Your task to perform on an android device: change your default location settings in chrome Image 0: 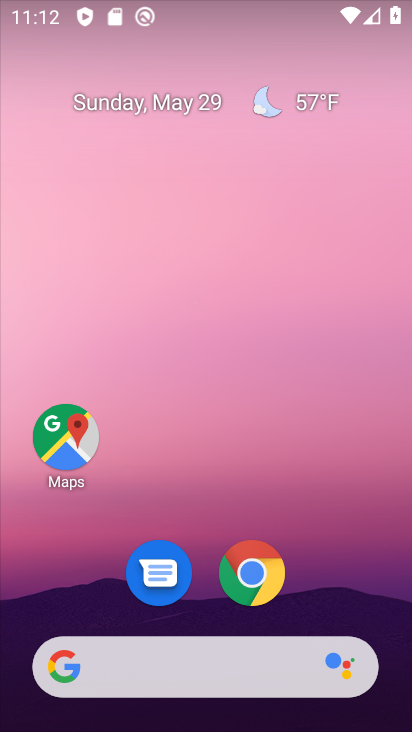
Step 0: drag from (319, 686) to (268, 1)
Your task to perform on an android device: change your default location settings in chrome Image 1: 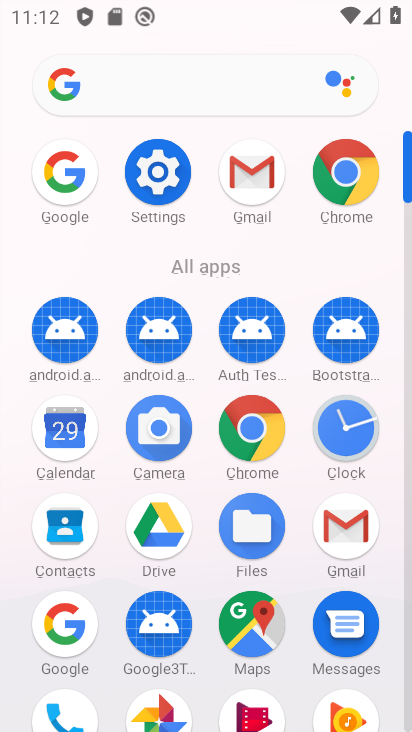
Step 1: click (261, 435)
Your task to perform on an android device: change your default location settings in chrome Image 2: 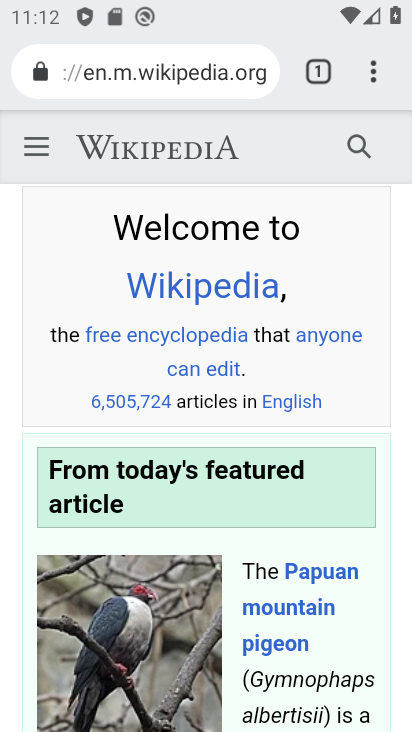
Step 2: drag from (371, 72) to (169, 576)
Your task to perform on an android device: change your default location settings in chrome Image 3: 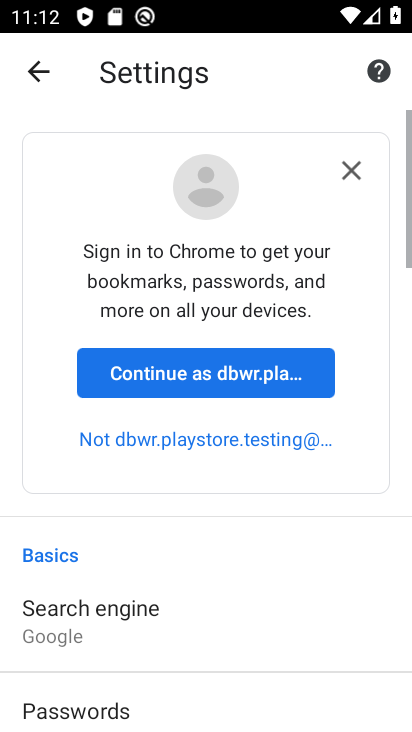
Step 3: drag from (275, 641) to (356, 35)
Your task to perform on an android device: change your default location settings in chrome Image 4: 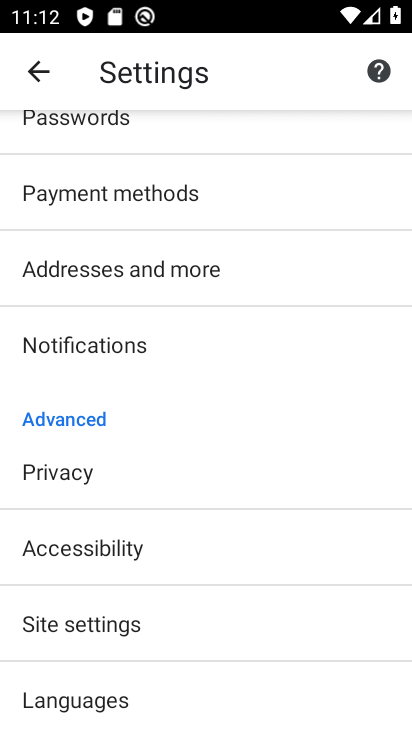
Step 4: click (112, 623)
Your task to perform on an android device: change your default location settings in chrome Image 5: 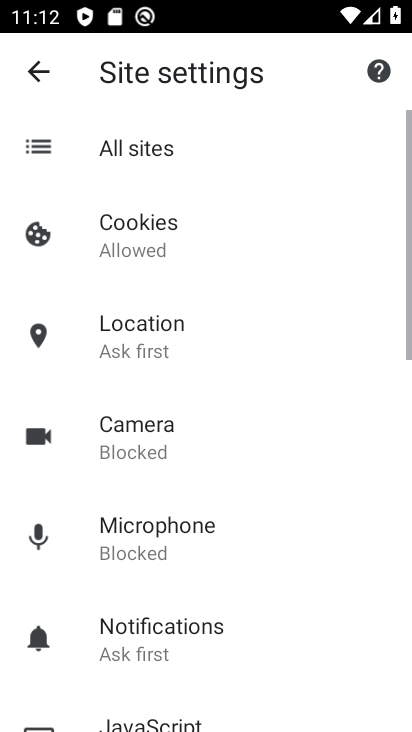
Step 5: drag from (260, 697) to (222, 358)
Your task to perform on an android device: change your default location settings in chrome Image 6: 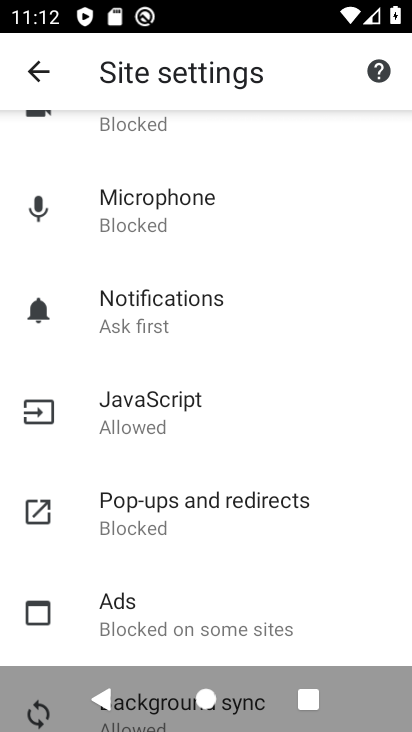
Step 6: drag from (213, 229) to (219, 500)
Your task to perform on an android device: change your default location settings in chrome Image 7: 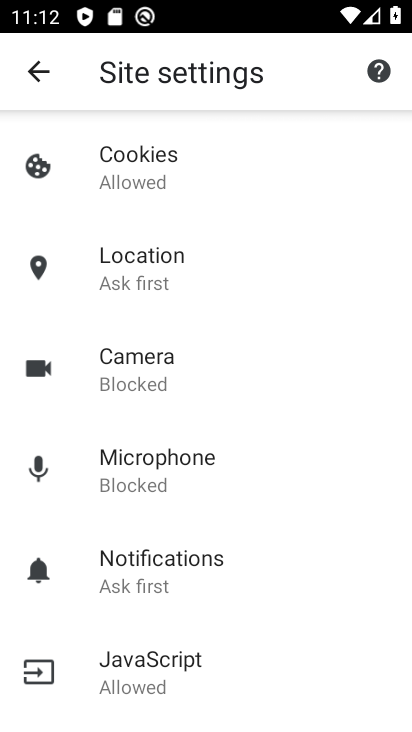
Step 7: click (185, 293)
Your task to perform on an android device: change your default location settings in chrome Image 8: 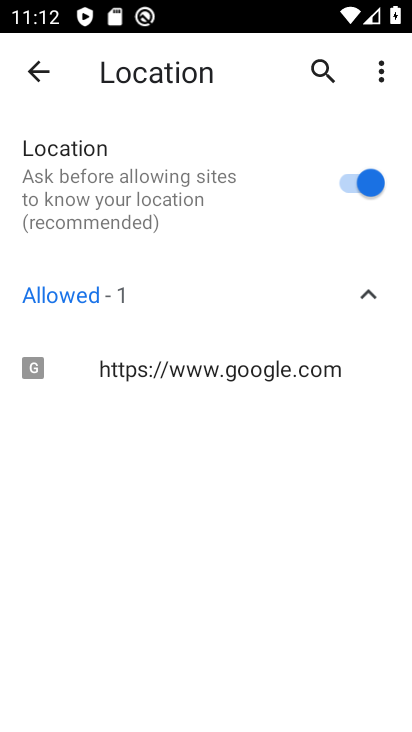
Step 8: task complete